Your task to perform on an android device: check data usage Image 0: 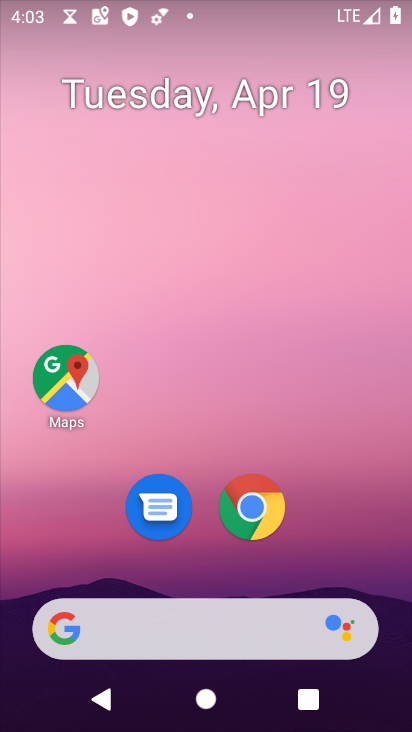
Step 0: drag from (348, 527) to (273, 10)
Your task to perform on an android device: check data usage Image 1: 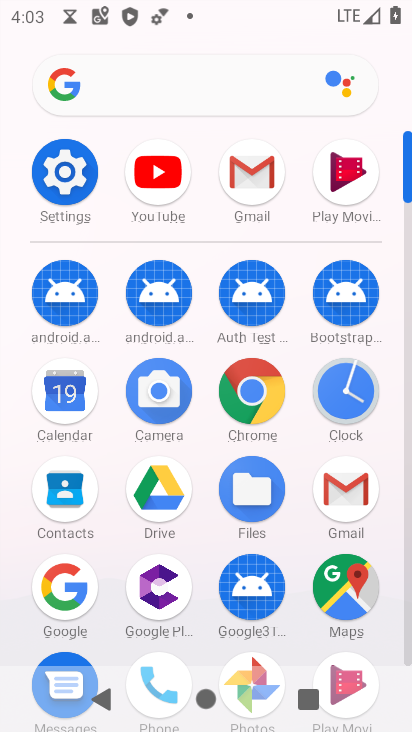
Step 1: click (52, 166)
Your task to perform on an android device: check data usage Image 2: 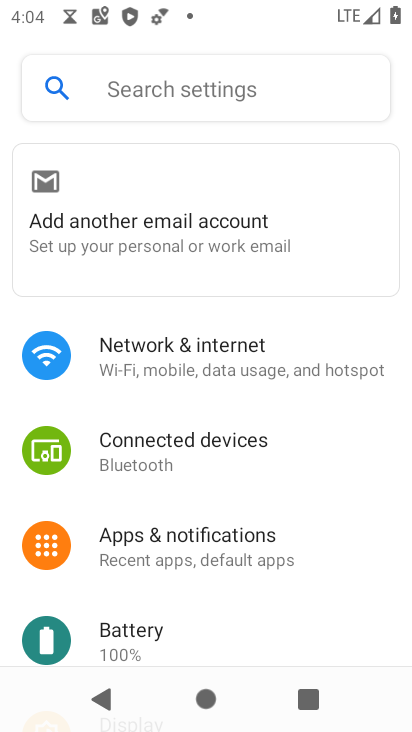
Step 2: click (192, 368)
Your task to perform on an android device: check data usage Image 3: 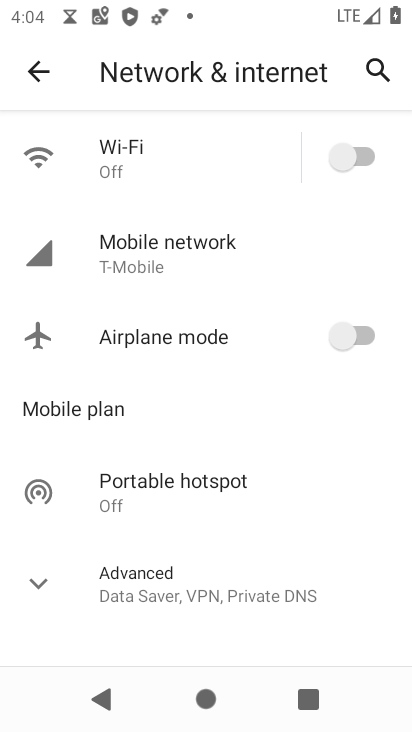
Step 3: click (188, 264)
Your task to perform on an android device: check data usage Image 4: 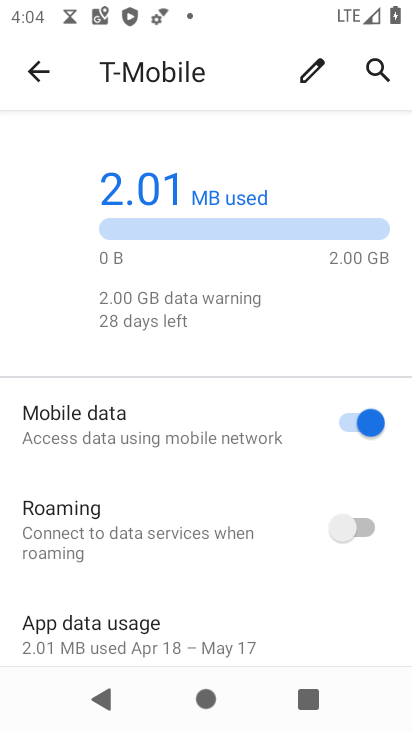
Step 4: click (197, 615)
Your task to perform on an android device: check data usage Image 5: 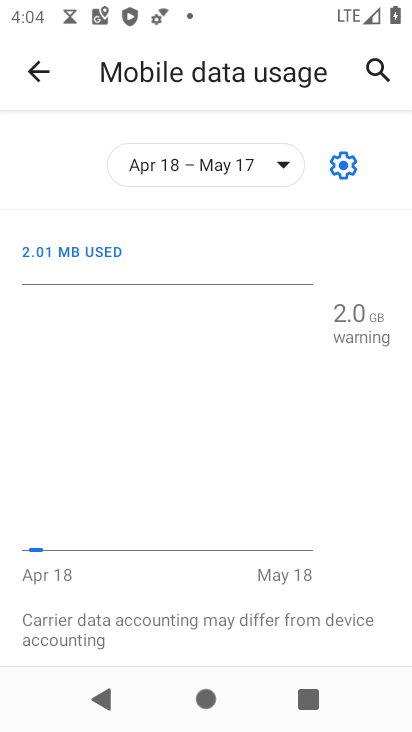
Step 5: task complete